Your task to perform on an android device: toggle sleep mode Image 0: 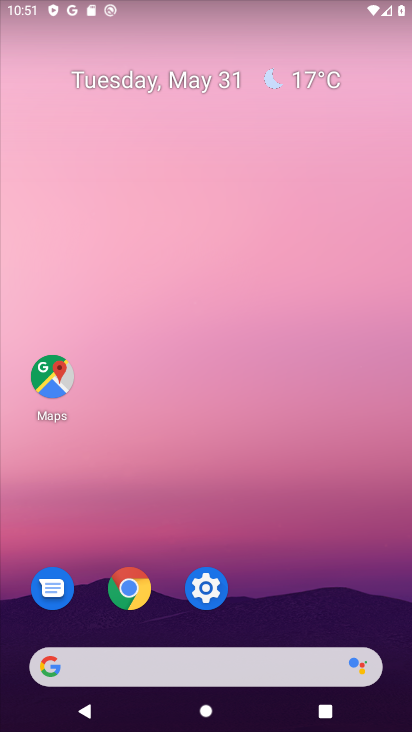
Step 0: press home button
Your task to perform on an android device: toggle sleep mode Image 1: 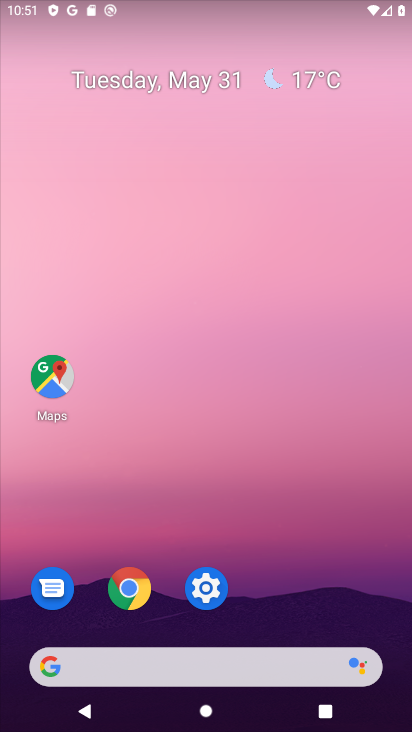
Step 1: drag from (214, 685) to (264, 55)
Your task to perform on an android device: toggle sleep mode Image 2: 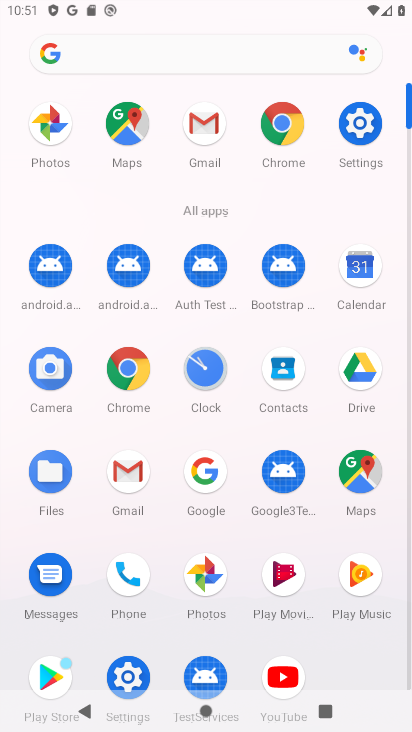
Step 2: click (358, 129)
Your task to perform on an android device: toggle sleep mode Image 3: 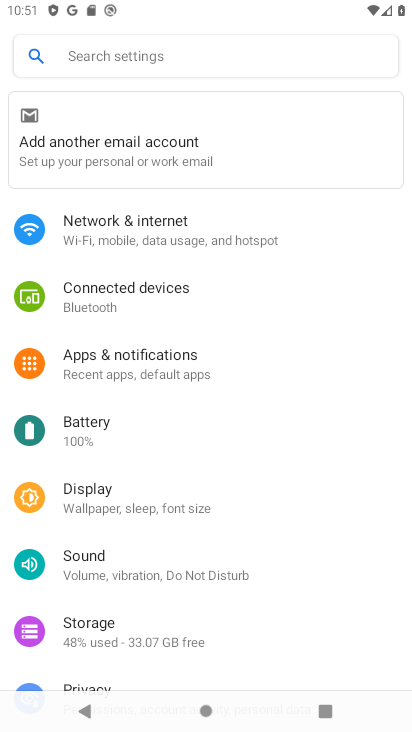
Step 3: click (104, 61)
Your task to perform on an android device: toggle sleep mode Image 4: 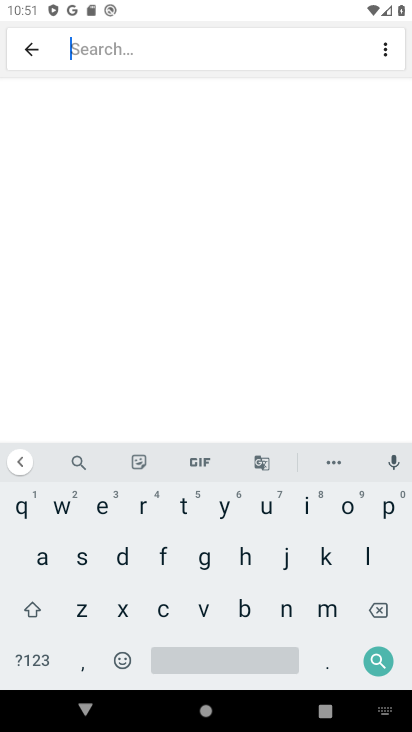
Step 4: click (80, 561)
Your task to perform on an android device: toggle sleep mode Image 5: 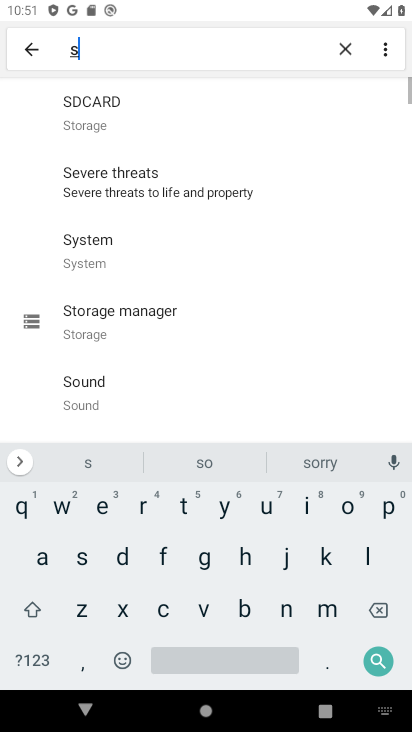
Step 5: click (371, 573)
Your task to perform on an android device: toggle sleep mode Image 6: 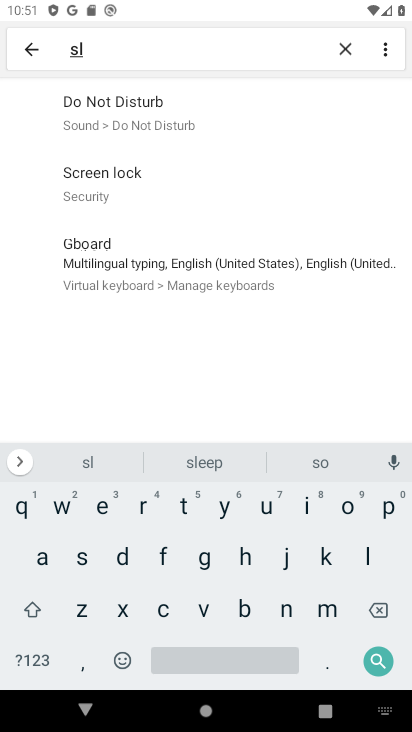
Step 6: click (157, 106)
Your task to perform on an android device: toggle sleep mode Image 7: 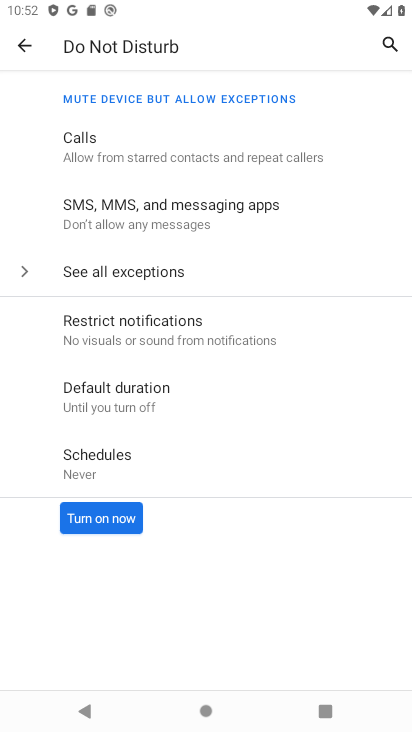
Step 7: task complete